Your task to perform on an android device: turn smart compose on in the gmail app Image 0: 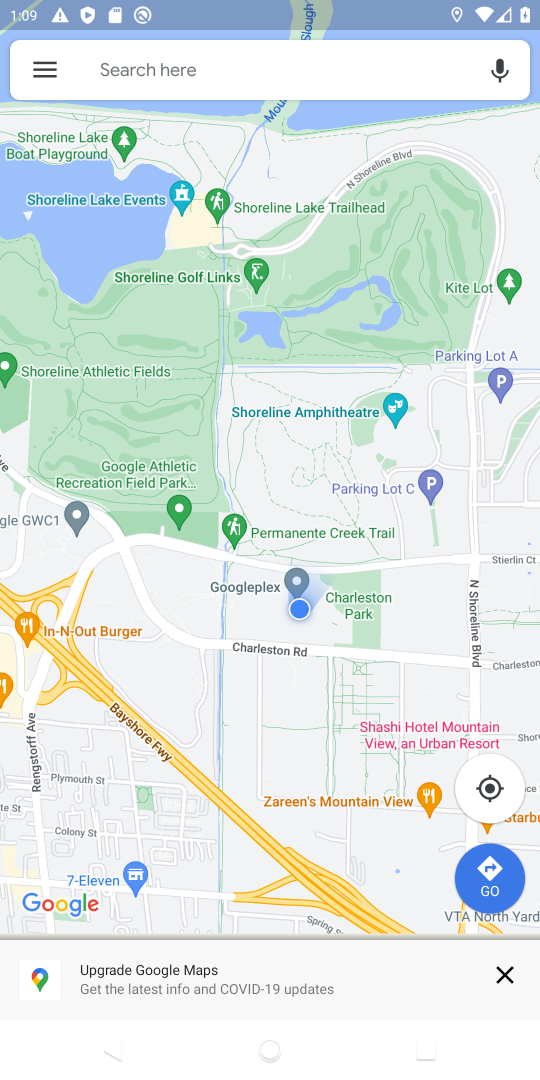
Step 0: press home button
Your task to perform on an android device: turn smart compose on in the gmail app Image 1: 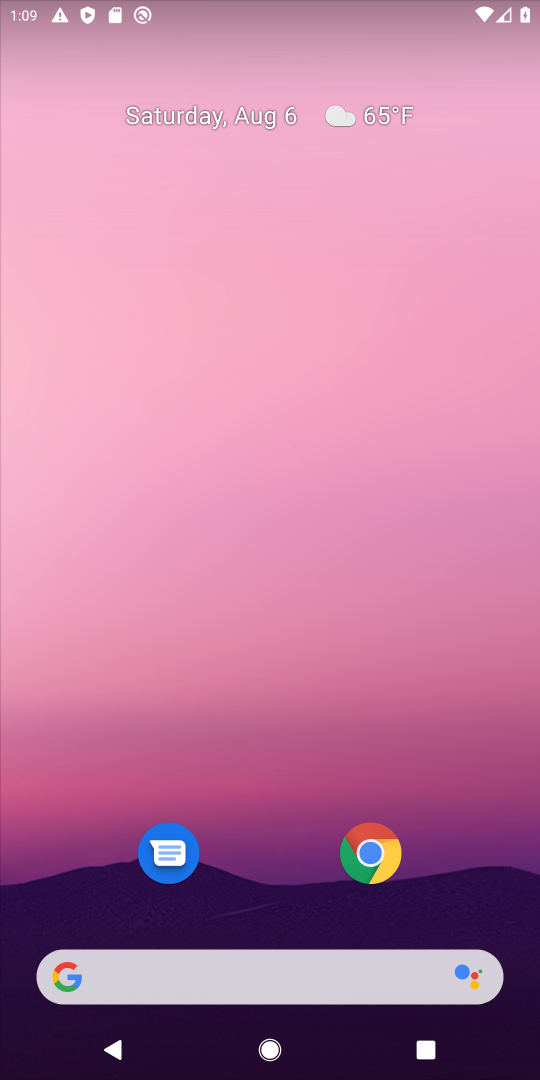
Step 1: drag from (523, 907) to (414, 218)
Your task to perform on an android device: turn smart compose on in the gmail app Image 2: 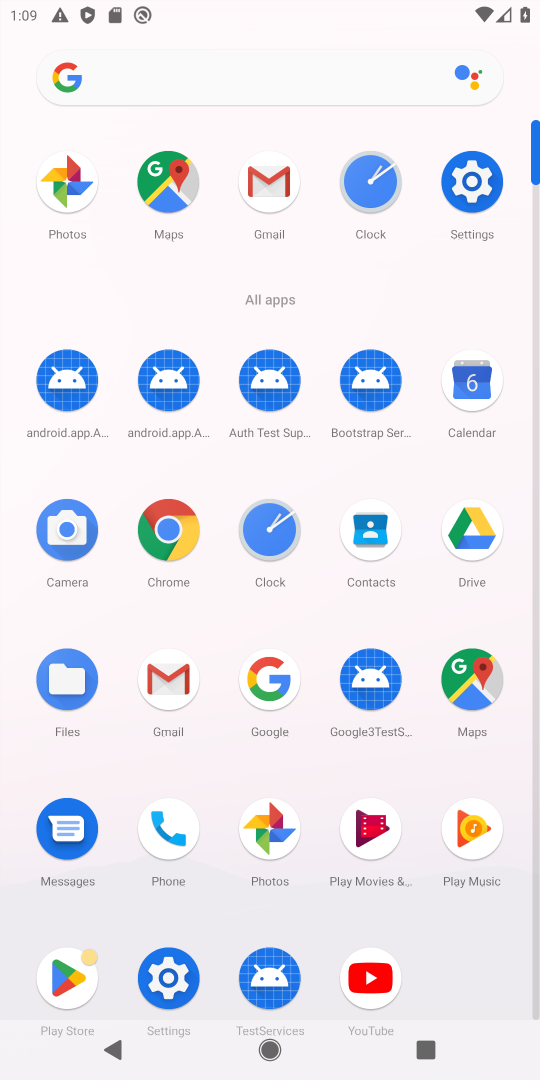
Step 2: click (165, 683)
Your task to perform on an android device: turn smart compose on in the gmail app Image 3: 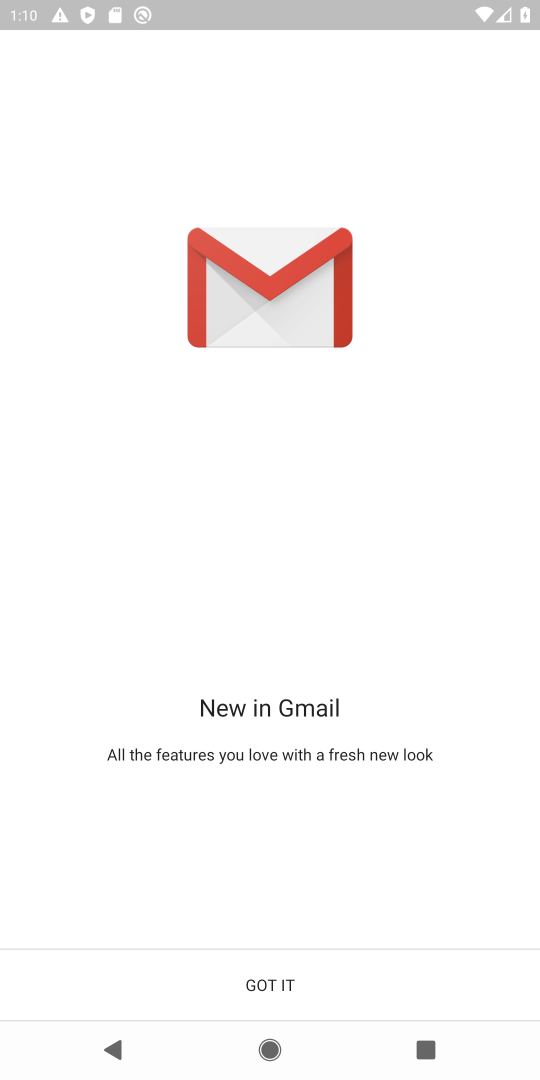
Step 3: click (264, 984)
Your task to perform on an android device: turn smart compose on in the gmail app Image 4: 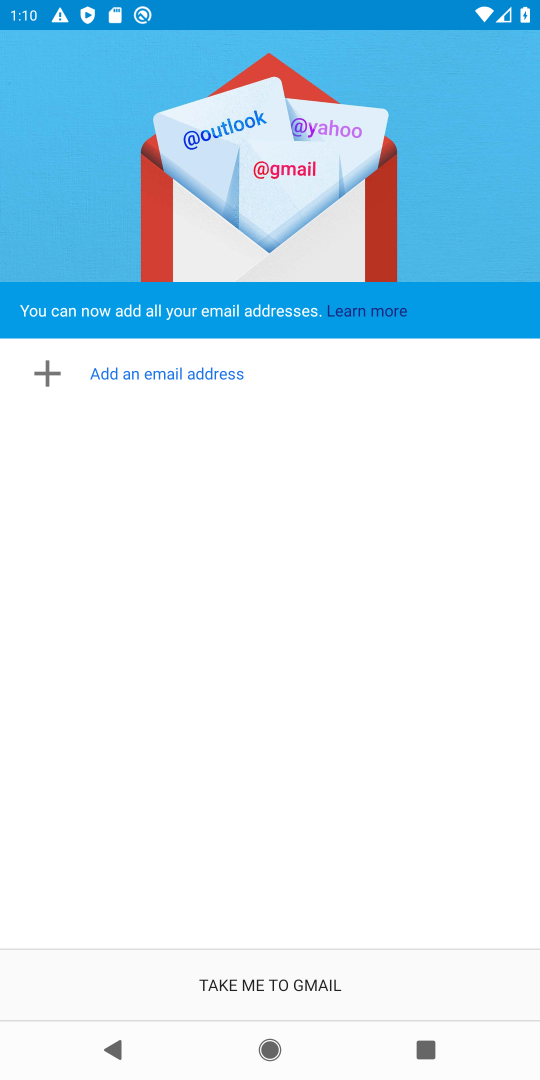
Step 4: click (264, 984)
Your task to perform on an android device: turn smart compose on in the gmail app Image 5: 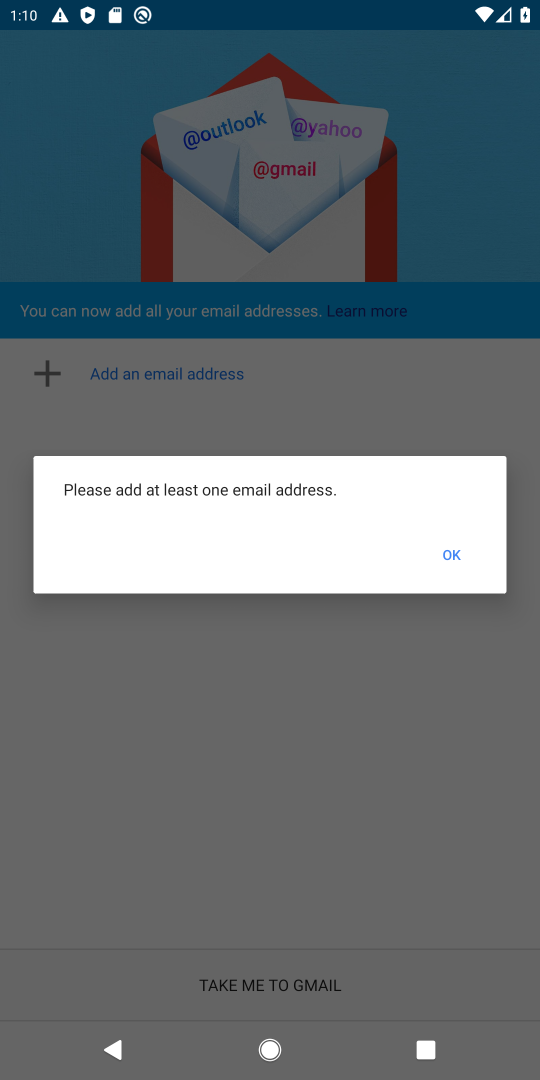
Step 5: click (448, 553)
Your task to perform on an android device: turn smart compose on in the gmail app Image 6: 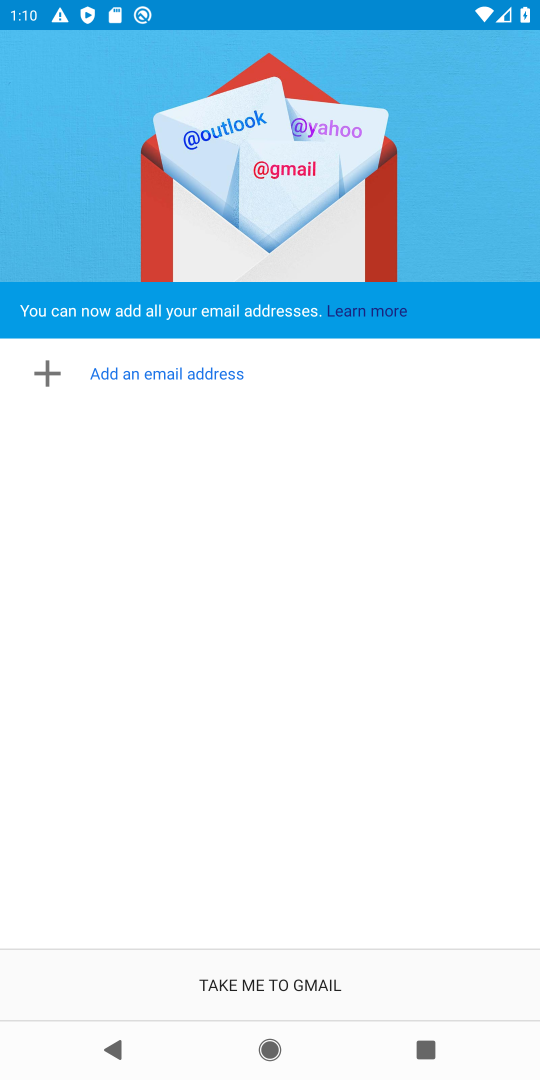
Step 6: task complete